Your task to perform on an android device: toggle airplane mode Image 0: 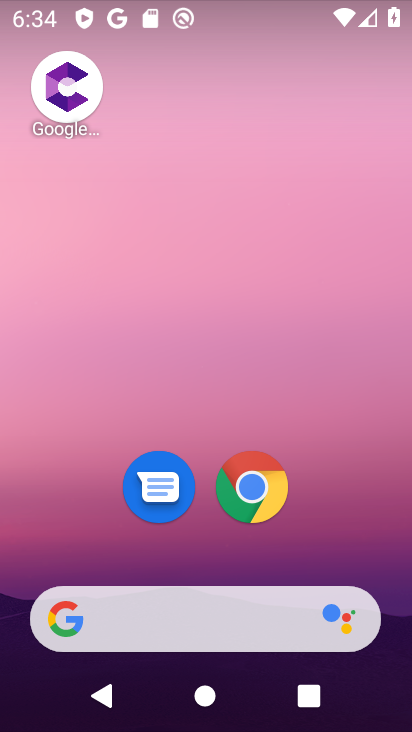
Step 0: drag from (338, 510) to (163, 94)
Your task to perform on an android device: toggle airplane mode Image 1: 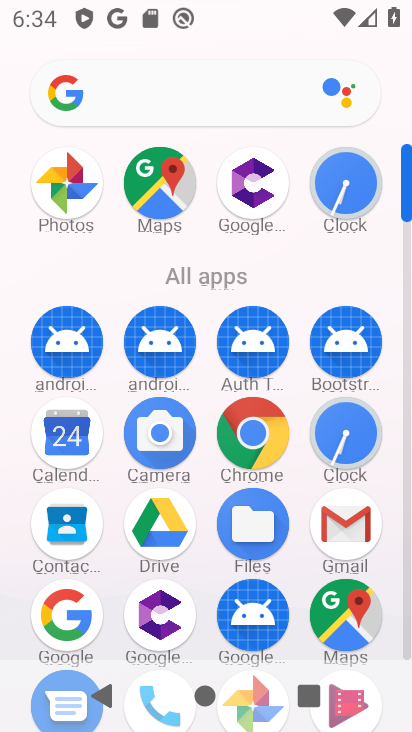
Step 1: drag from (212, 583) to (142, 175)
Your task to perform on an android device: toggle airplane mode Image 2: 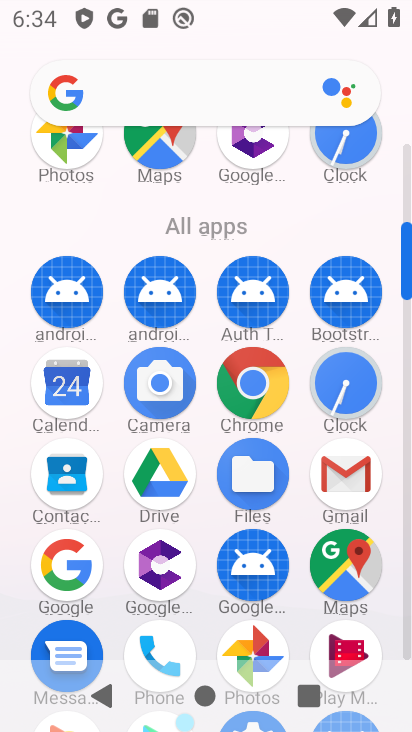
Step 2: drag from (119, 525) to (140, 317)
Your task to perform on an android device: toggle airplane mode Image 3: 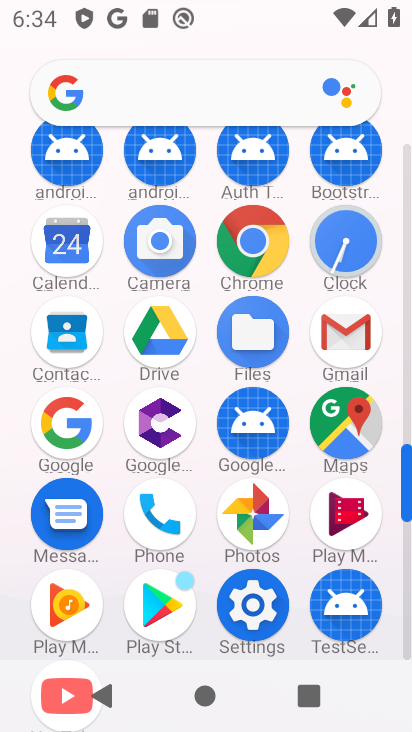
Step 3: click (252, 605)
Your task to perform on an android device: toggle airplane mode Image 4: 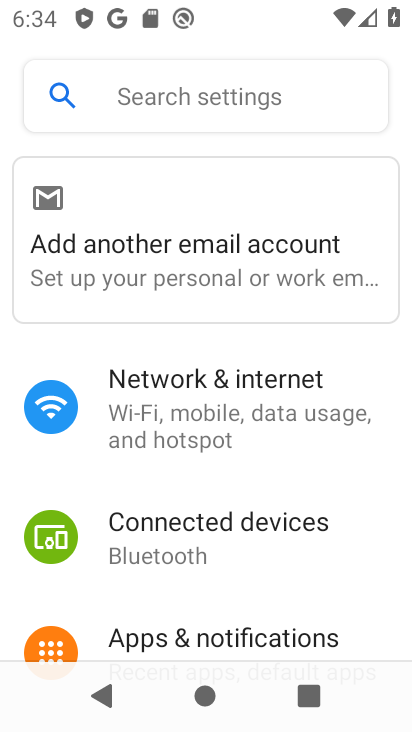
Step 4: click (186, 396)
Your task to perform on an android device: toggle airplane mode Image 5: 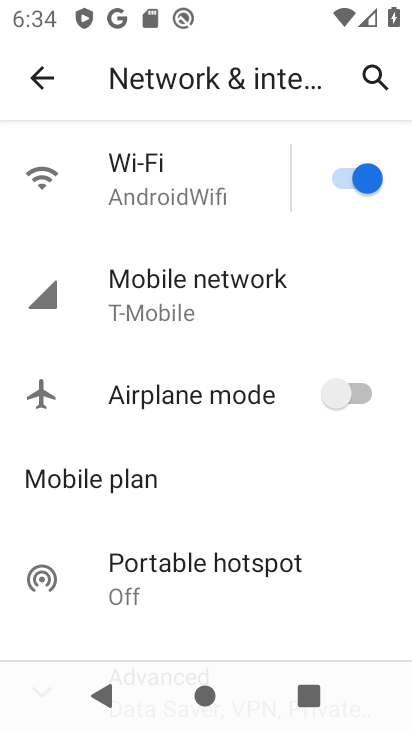
Step 5: click (336, 388)
Your task to perform on an android device: toggle airplane mode Image 6: 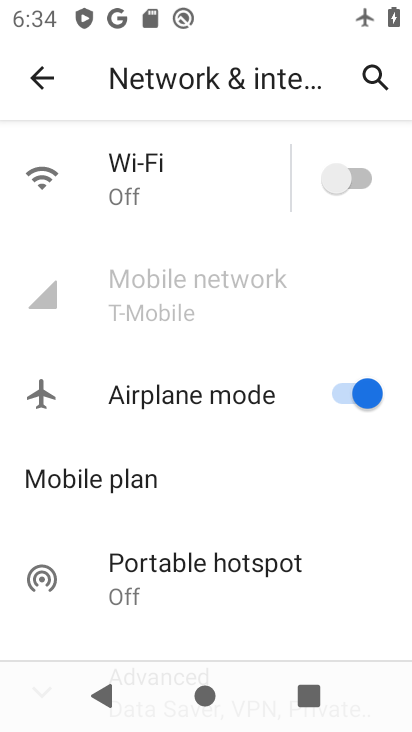
Step 6: task complete